Your task to perform on an android device: turn off wifi Image 0: 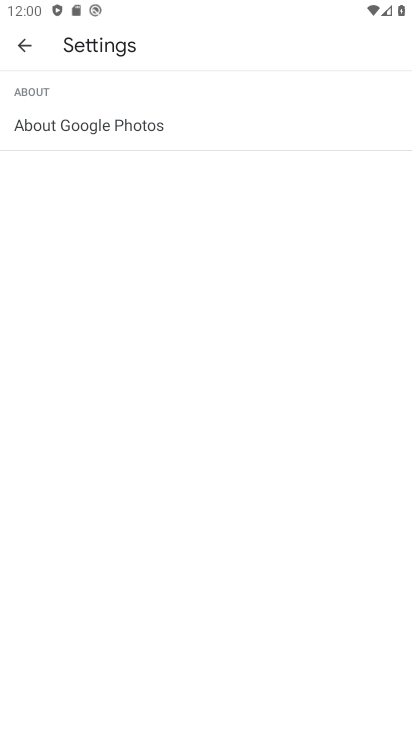
Step 0: press home button
Your task to perform on an android device: turn off wifi Image 1: 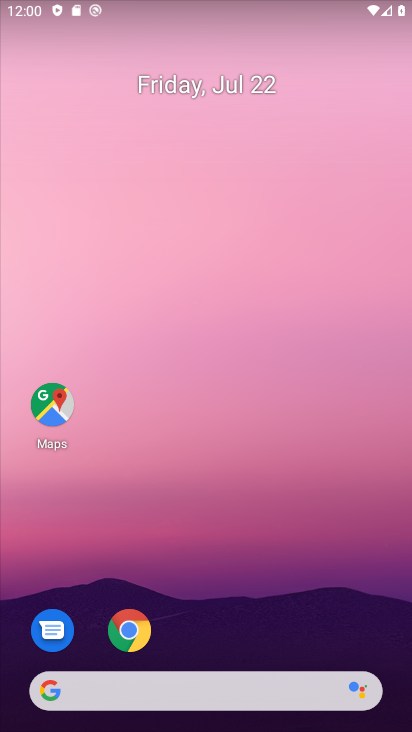
Step 1: drag from (251, 611) to (223, 147)
Your task to perform on an android device: turn off wifi Image 2: 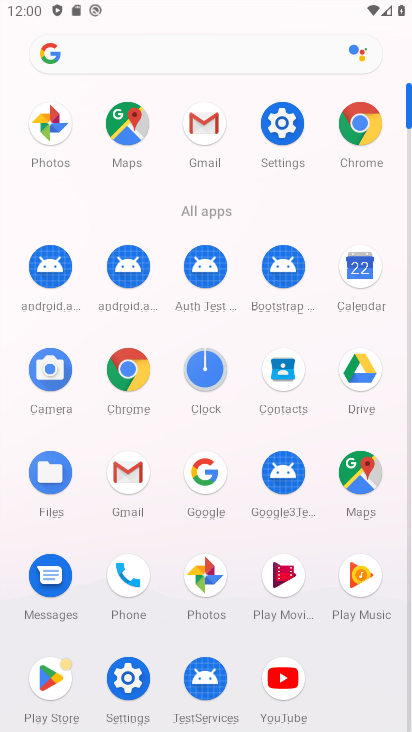
Step 2: click (284, 124)
Your task to perform on an android device: turn off wifi Image 3: 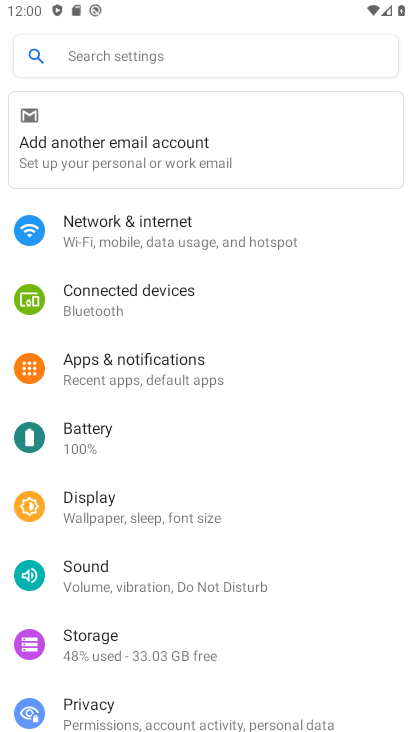
Step 3: click (213, 232)
Your task to perform on an android device: turn off wifi Image 4: 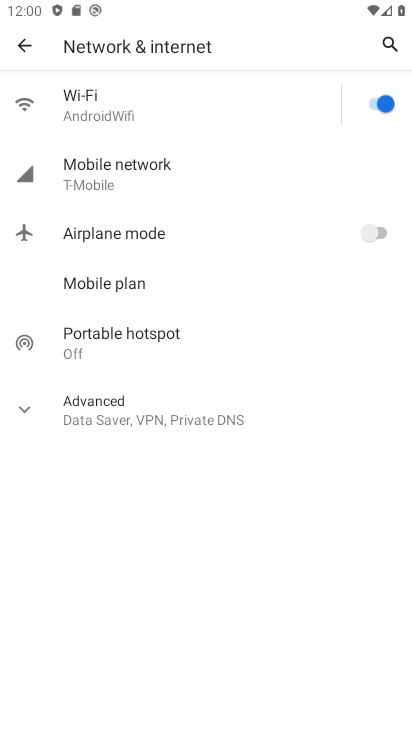
Step 4: click (376, 95)
Your task to perform on an android device: turn off wifi Image 5: 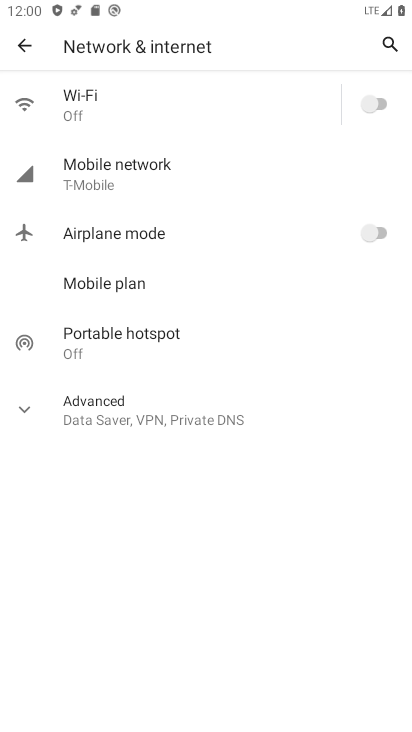
Step 5: task complete